Your task to perform on an android device: Search for razer nari on newegg.com, select the first entry, and add it to the cart. Image 0: 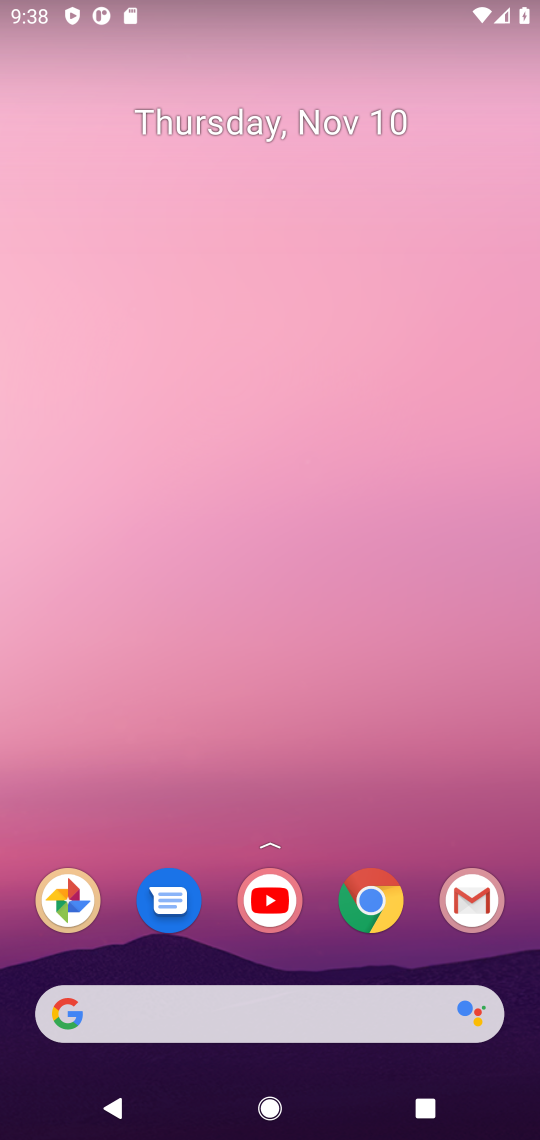
Step 0: click (262, 1126)
Your task to perform on an android device: Search for razer nari on newegg.com, select the first entry, and add it to the cart. Image 1: 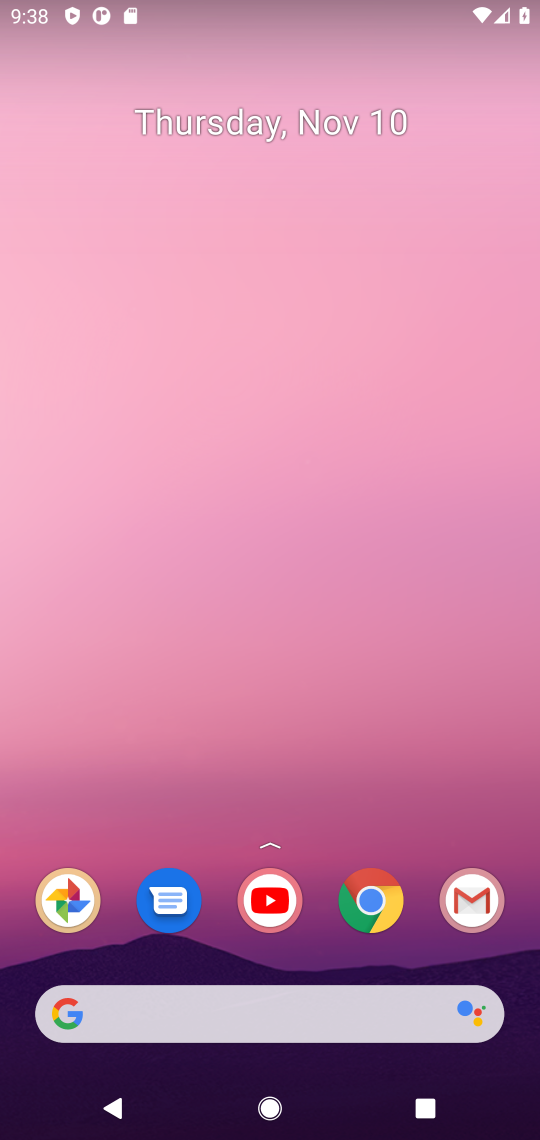
Step 1: click (368, 896)
Your task to perform on an android device: Search for razer nari on newegg.com, select the first entry, and add it to the cart. Image 2: 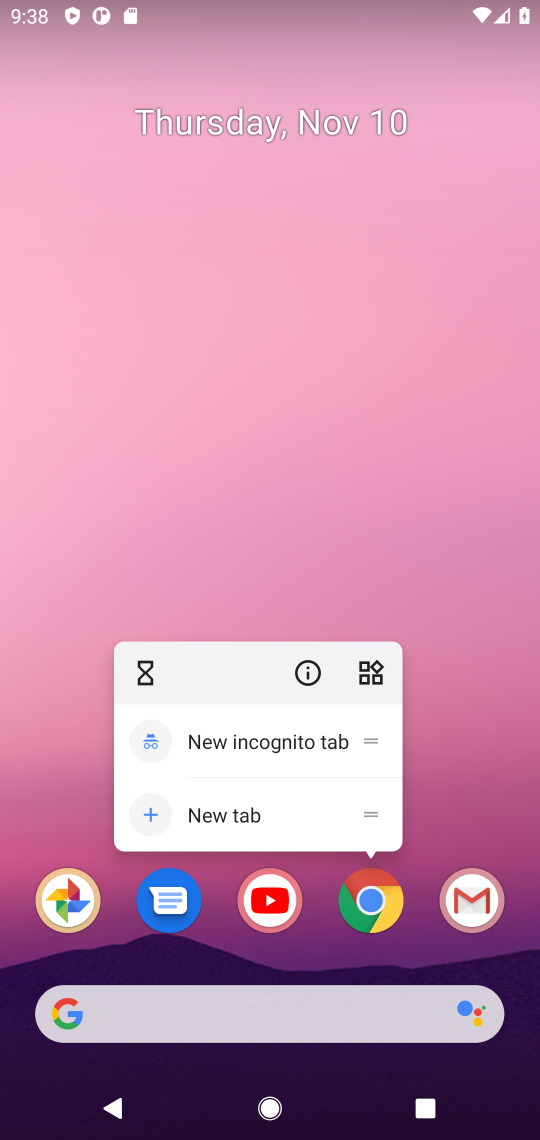
Step 2: click (374, 897)
Your task to perform on an android device: Search for razer nari on newegg.com, select the first entry, and add it to the cart. Image 3: 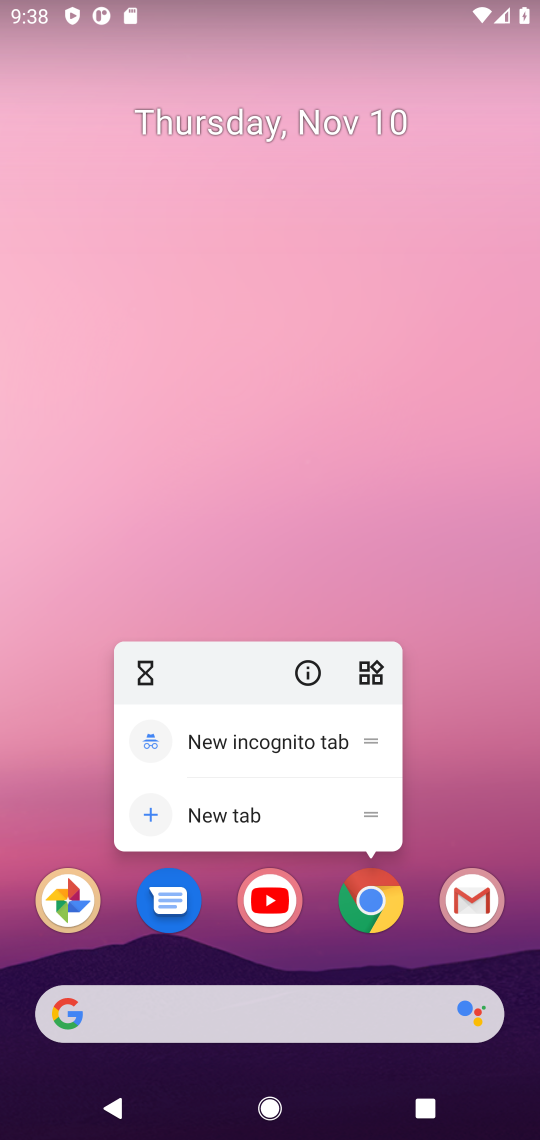
Step 3: click (375, 899)
Your task to perform on an android device: Search for razer nari on newegg.com, select the first entry, and add it to the cart. Image 4: 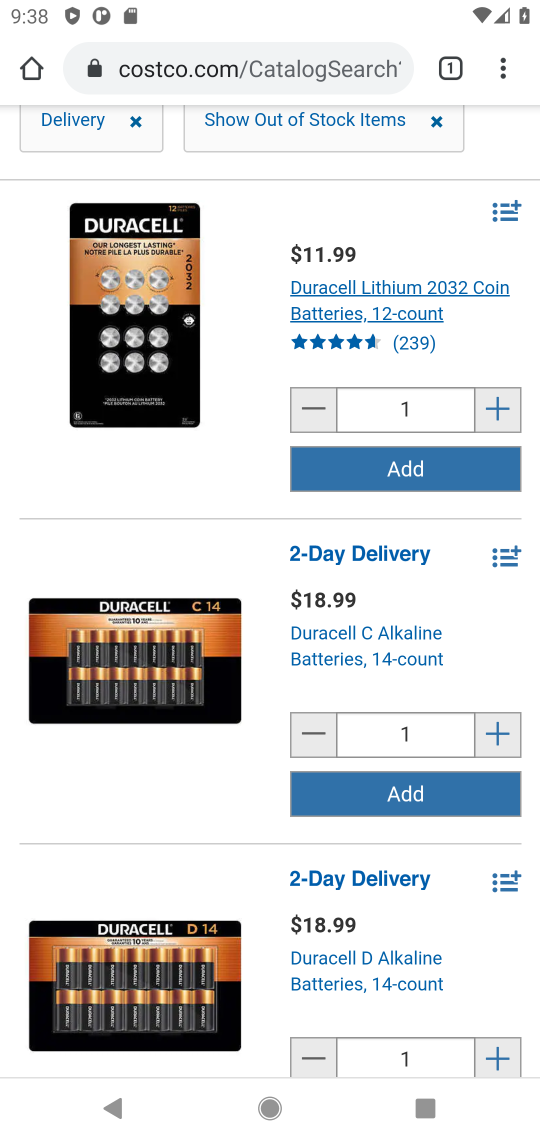
Step 4: click (330, 58)
Your task to perform on an android device: Search for razer nari on newegg.com, select the first entry, and add it to the cart. Image 5: 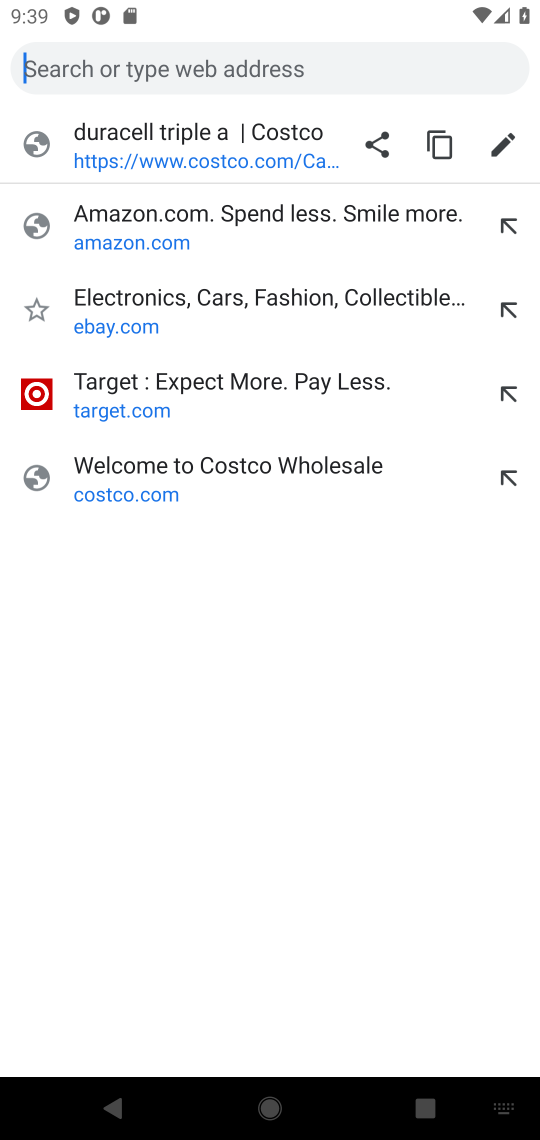
Step 5: type "newegg.com"
Your task to perform on an android device: Search for razer nari on newegg.com, select the first entry, and add it to the cart. Image 6: 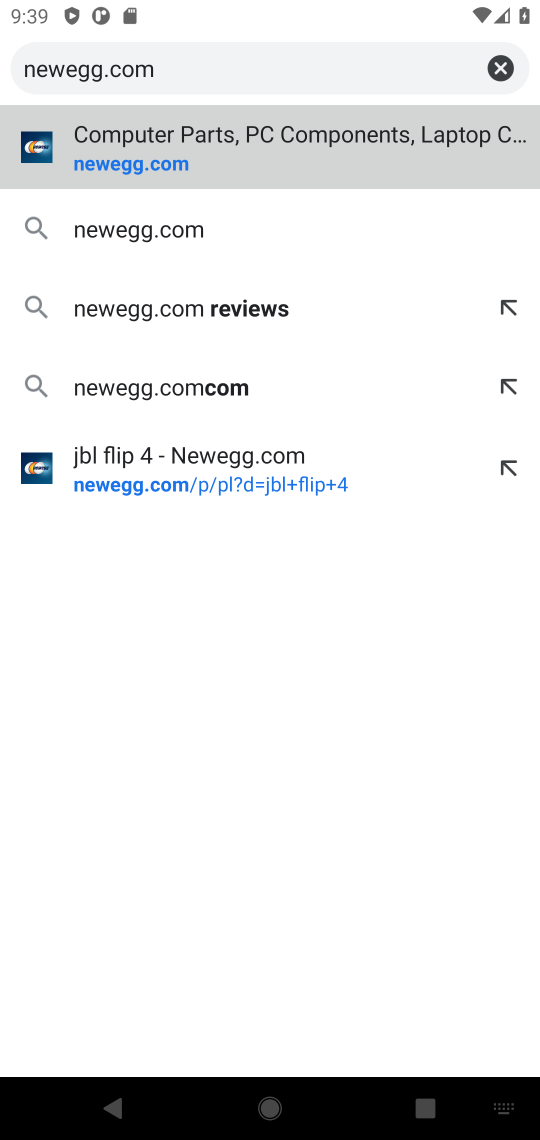
Step 6: press enter
Your task to perform on an android device: Search for razer nari on newegg.com, select the first entry, and add it to the cart. Image 7: 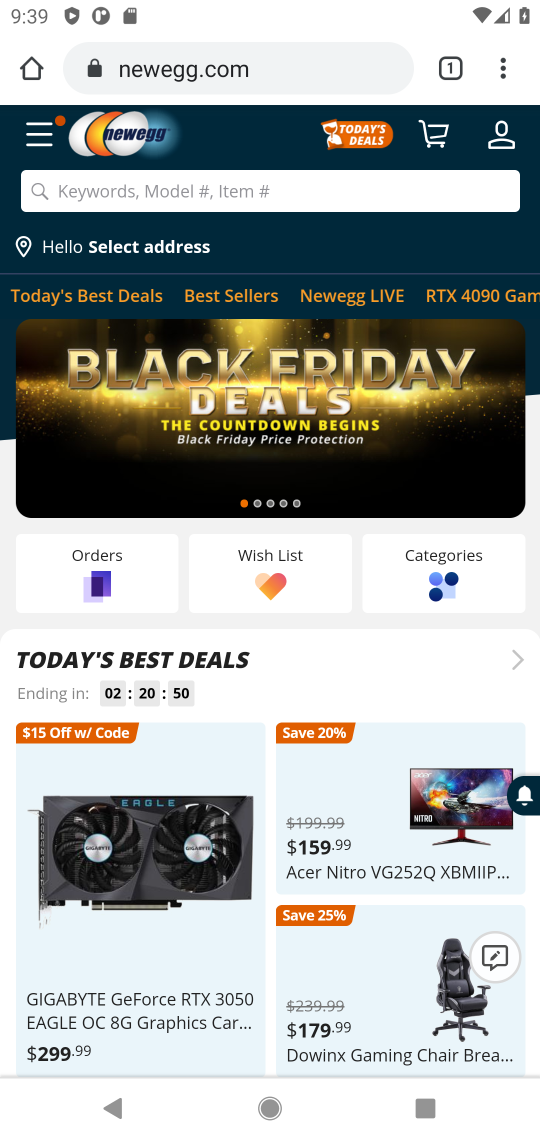
Step 7: click (344, 184)
Your task to perform on an android device: Search for razer nari on newegg.com, select the first entry, and add it to the cart. Image 8: 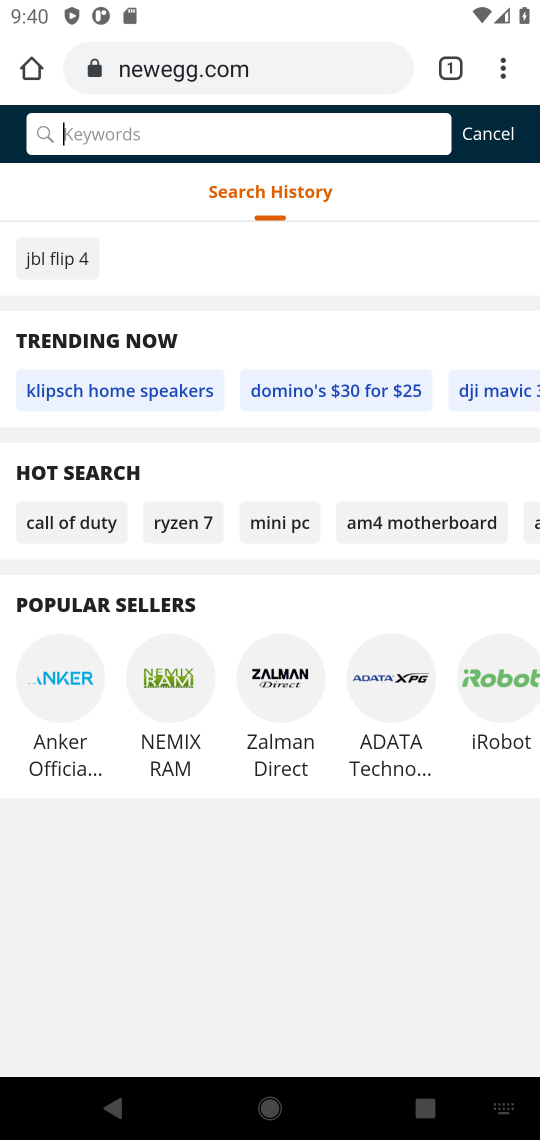
Step 8: click (189, 451)
Your task to perform on an android device: Search for razer nari on newegg.com, select the first entry, and add it to the cart. Image 9: 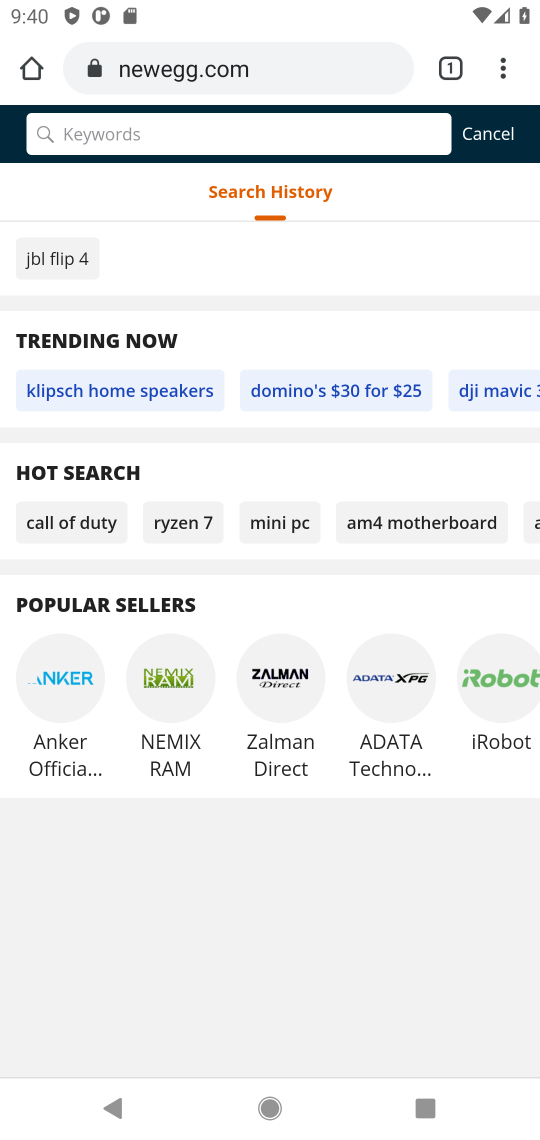
Step 9: type "razer nari "
Your task to perform on an android device: Search for razer nari on newegg.com, select the first entry, and add it to the cart. Image 10: 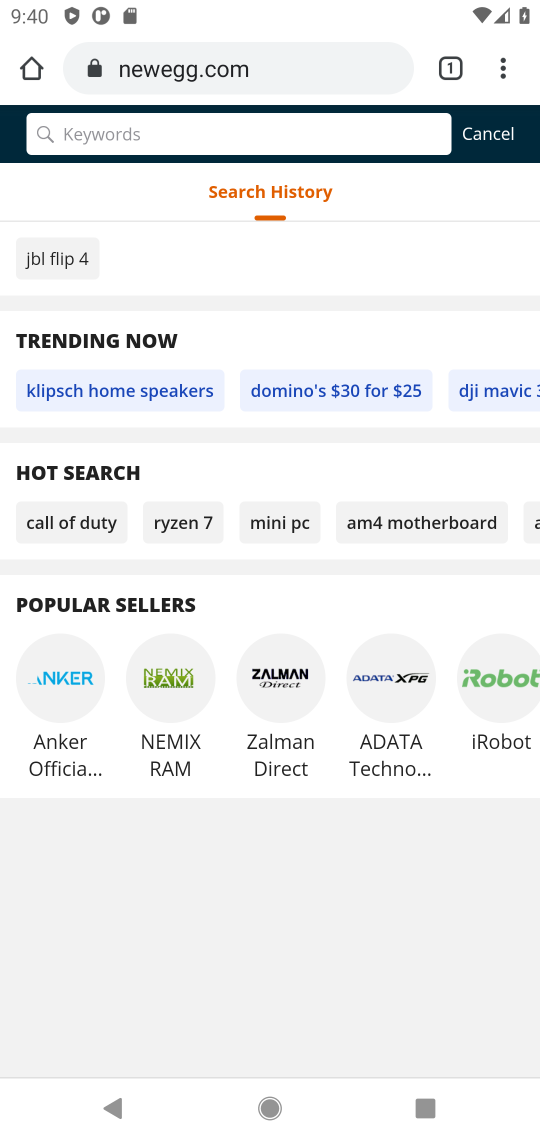
Step 10: press enter
Your task to perform on an android device: Search for razer nari on newegg.com, select the first entry, and add it to the cart. Image 11: 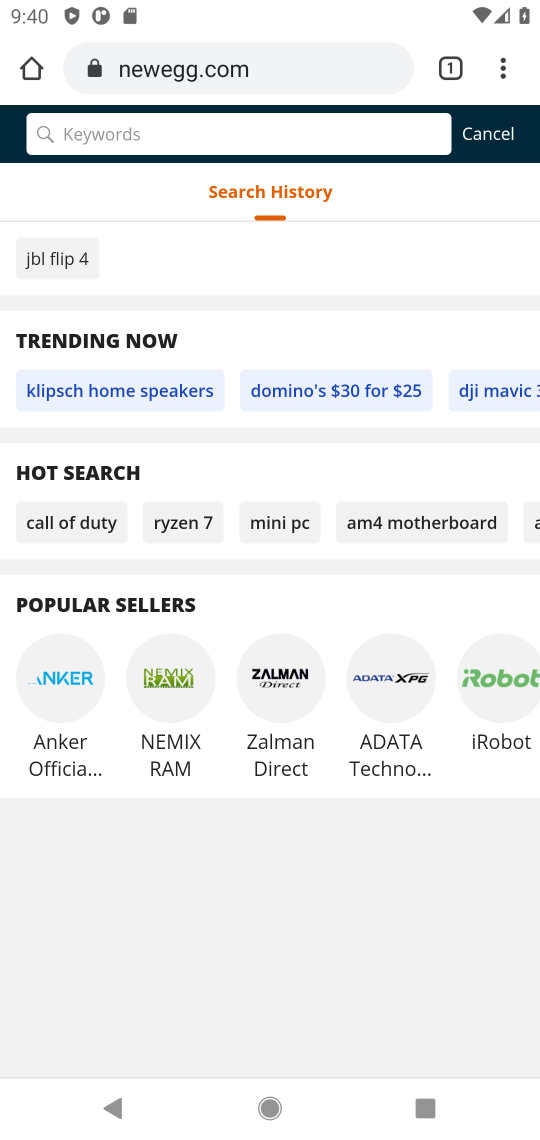
Step 11: click (124, 129)
Your task to perform on an android device: Search for razer nari on newegg.com, select the first entry, and add it to the cart. Image 12: 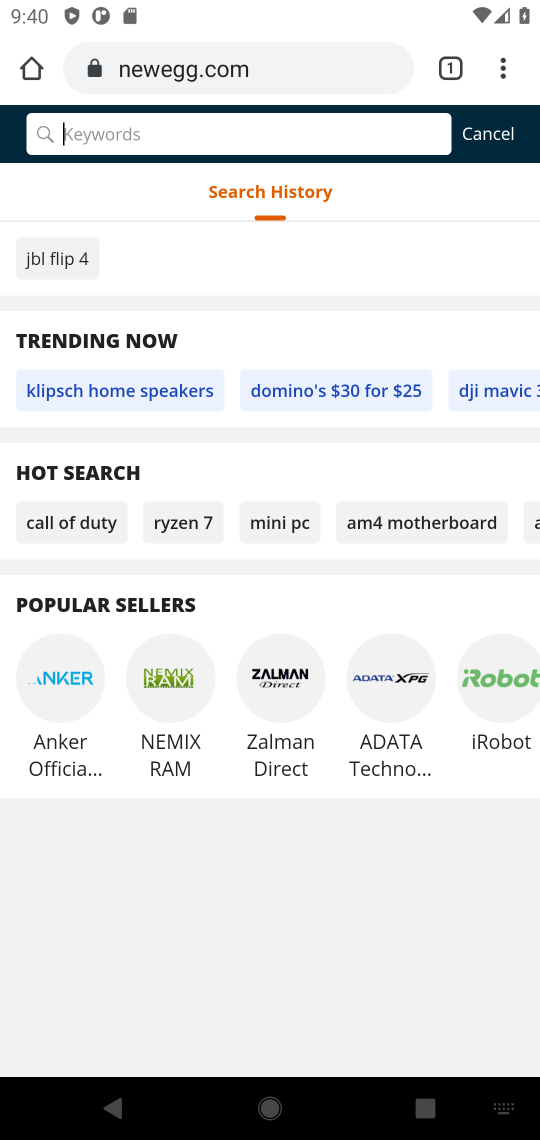
Step 12: type "razer nari "
Your task to perform on an android device: Search for razer nari on newegg.com, select the first entry, and add it to the cart. Image 13: 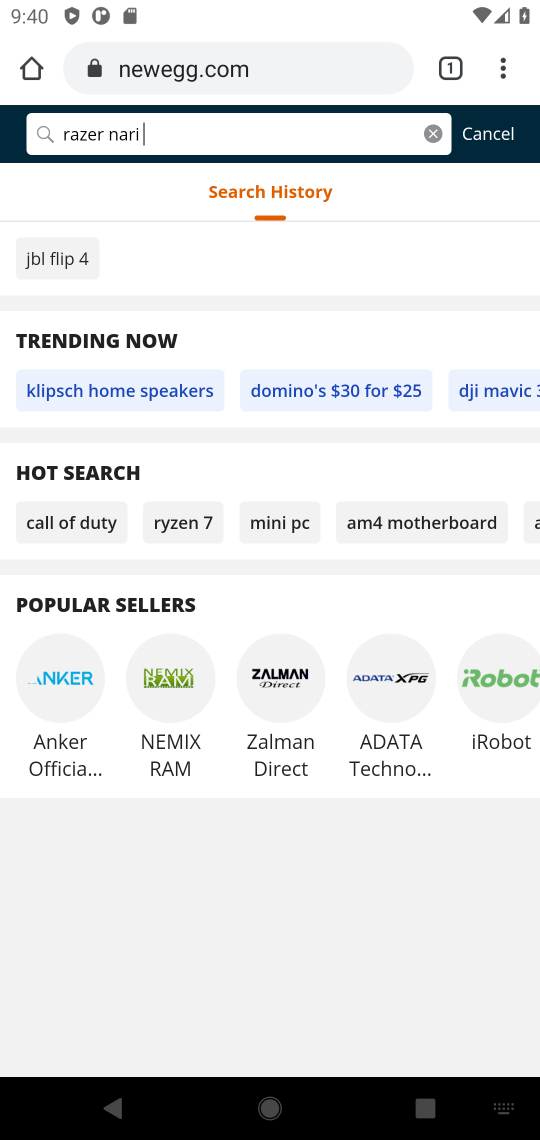
Step 13: press enter
Your task to perform on an android device: Search for razer nari on newegg.com, select the first entry, and add it to the cart. Image 14: 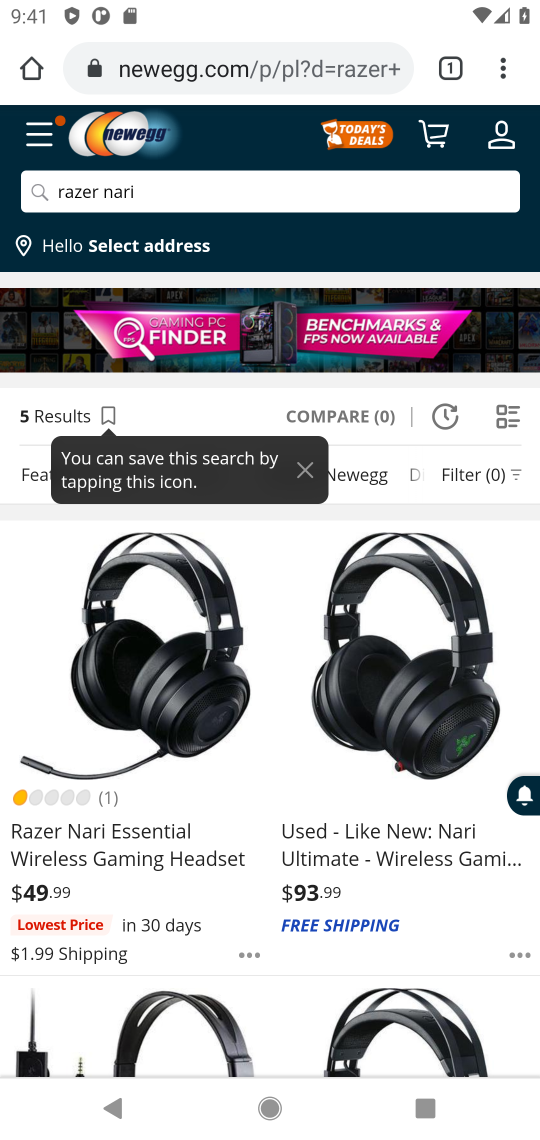
Step 14: click (145, 832)
Your task to perform on an android device: Search for razer nari on newegg.com, select the first entry, and add it to the cart. Image 15: 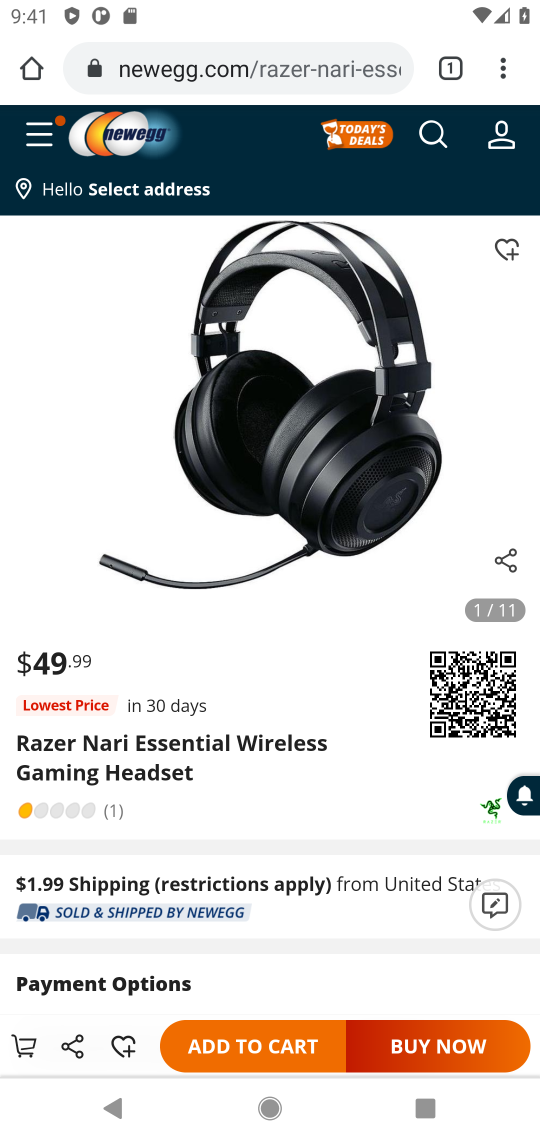
Step 15: click (284, 1045)
Your task to perform on an android device: Search for razer nari on newegg.com, select the first entry, and add it to the cart. Image 16: 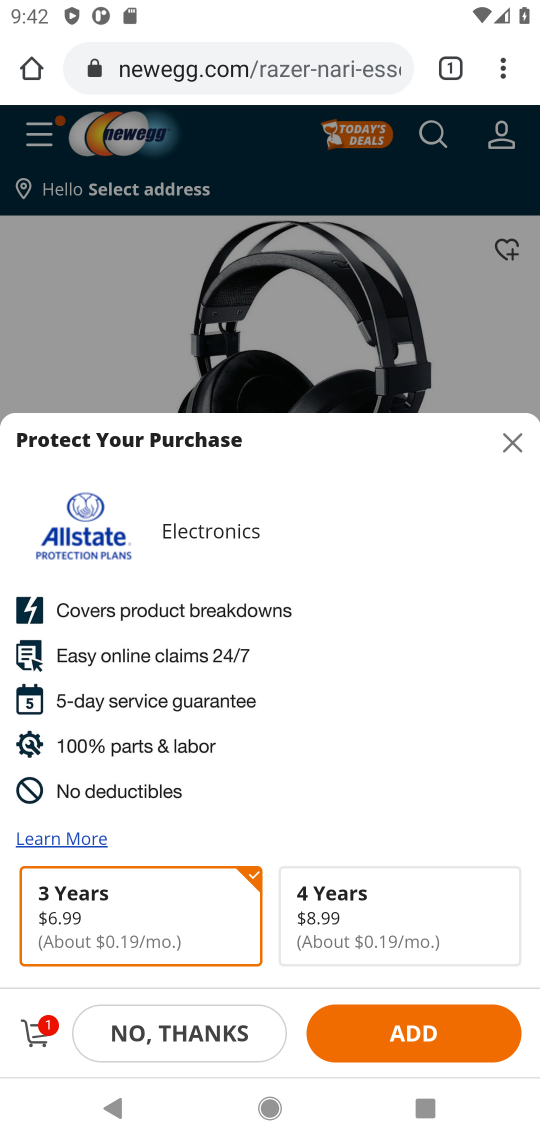
Step 16: click (35, 1037)
Your task to perform on an android device: Search for razer nari on newegg.com, select the first entry, and add it to the cart. Image 17: 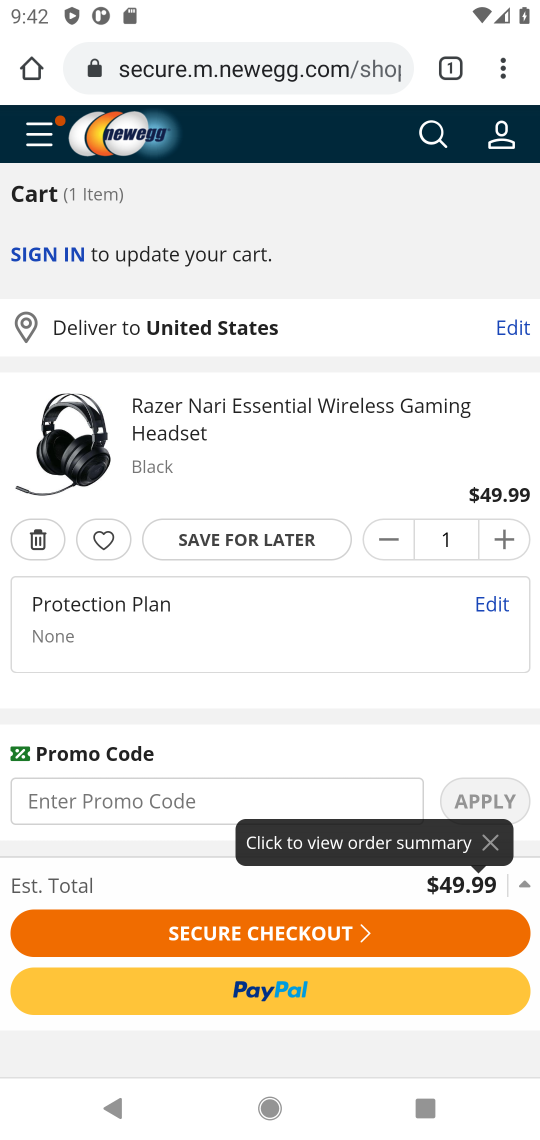
Step 17: task complete